Your task to perform on an android device: Open Chrome and go to settings Image 0: 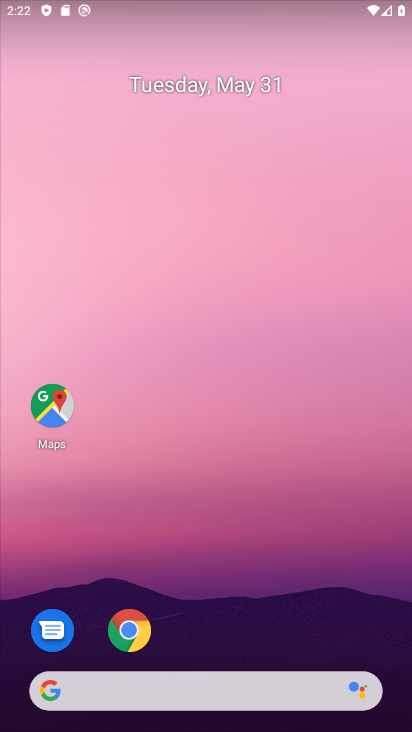
Step 0: click (139, 627)
Your task to perform on an android device: Open Chrome and go to settings Image 1: 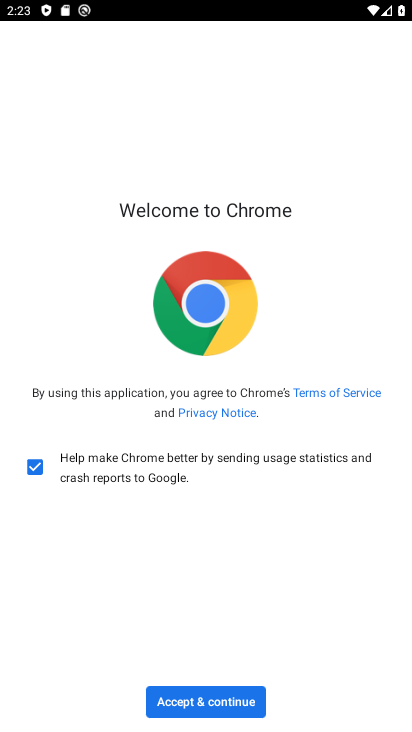
Step 1: click (184, 707)
Your task to perform on an android device: Open Chrome and go to settings Image 2: 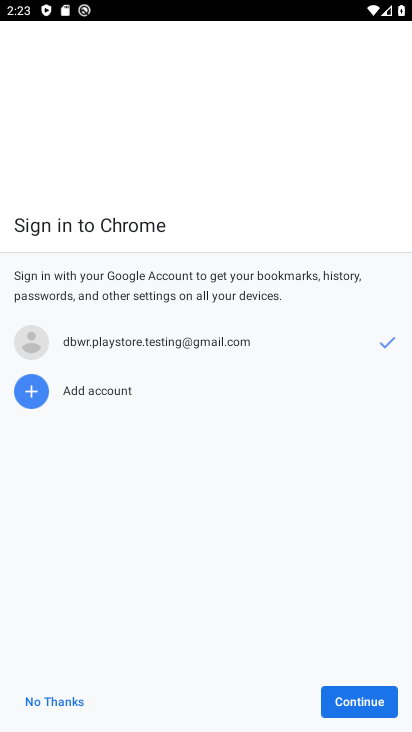
Step 2: click (364, 699)
Your task to perform on an android device: Open Chrome and go to settings Image 3: 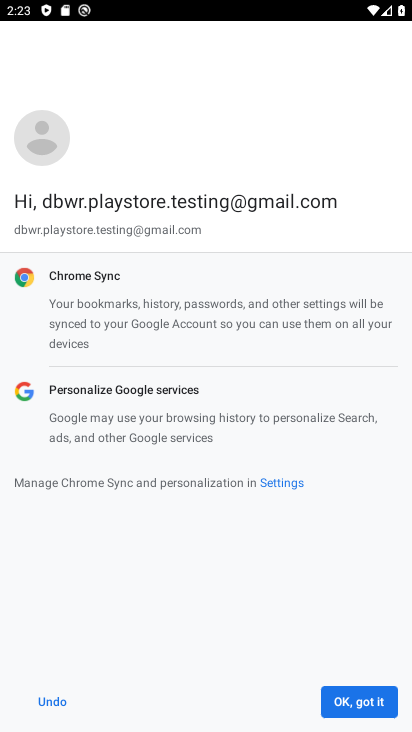
Step 3: click (361, 700)
Your task to perform on an android device: Open Chrome and go to settings Image 4: 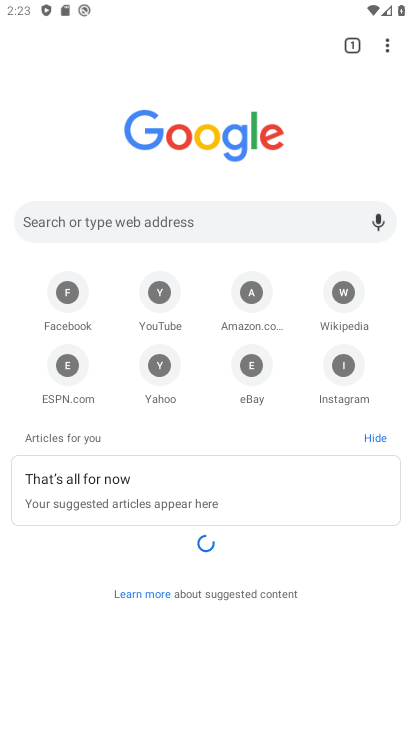
Step 4: task complete